Your task to perform on an android device: manage bookmarks in the chrome app Image 0: 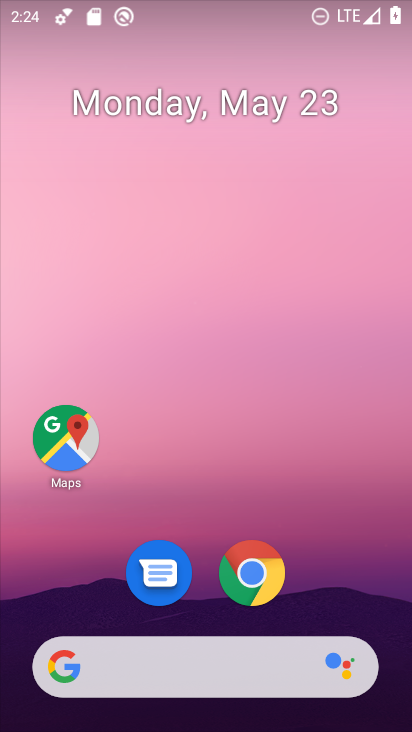
Step 0: click (259, 572)
Your task to perform on an android device: manage bookmarks in the chrome app Image 1: 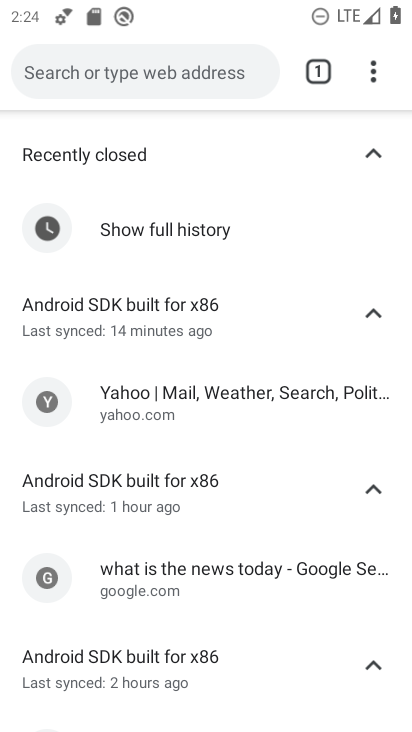
Step 1: drag from (375, 67) to (192, 273)
Your task to perform on an android device: manage bookmarks in the chrome app Image 2: 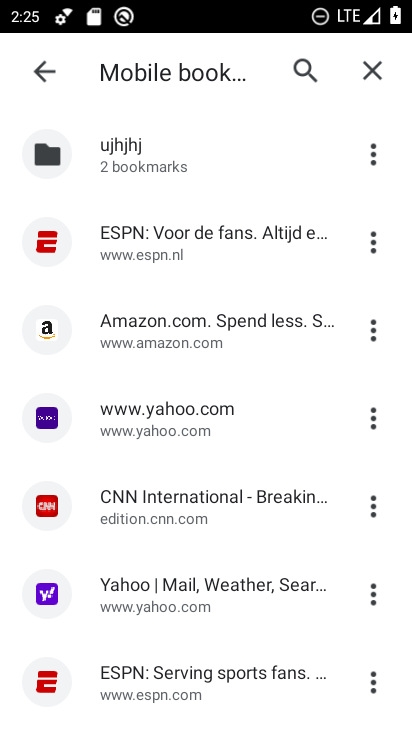
Step 2: click (377, 234)
Your task to perform on an android device: manage bookmarks in the chrome app Image 3: 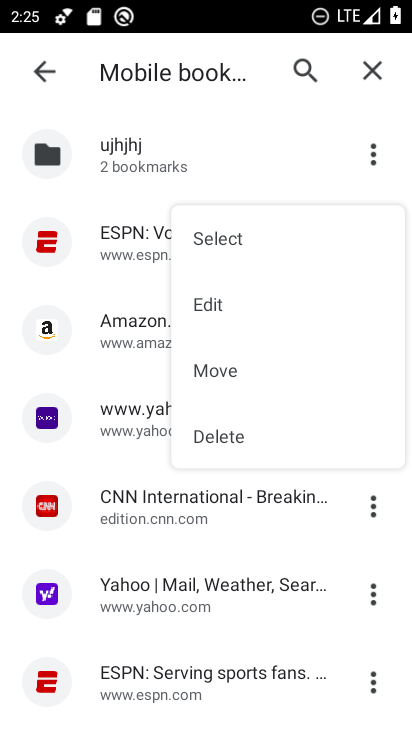
Step 3: click (210, 434)
Your task to perform on an android device: manage bookmarks in the chrome app Image 4: 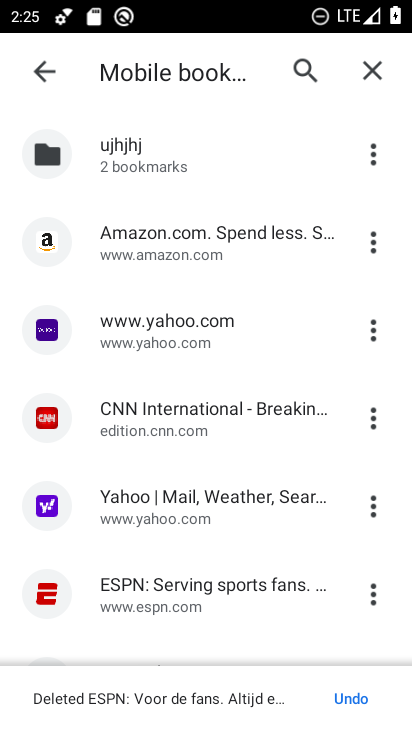
Step 4: task complete